Your task to perform on an android device: open sync settings in chrome Image 0: 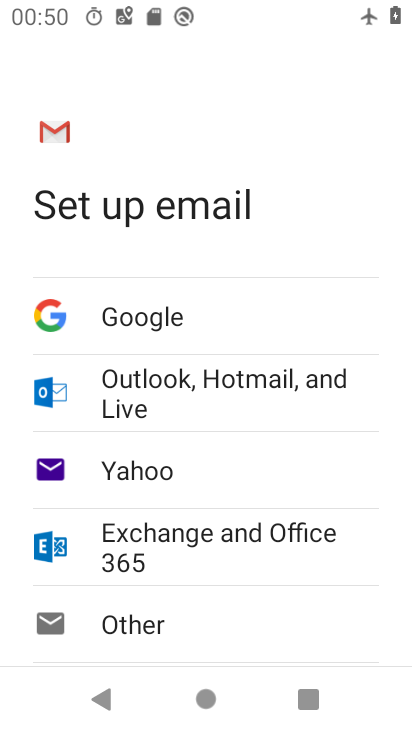
Step 0: press back button
Your task to perform on an android device: open sync settings in chrome Image 1: 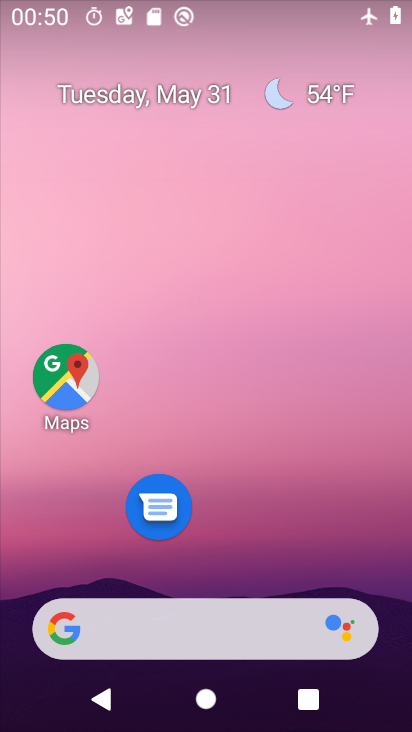
Step 1: drag from (203, 319) to (174, 160)
Your task to perform on an android device: open sync settings in chrome Image 2: 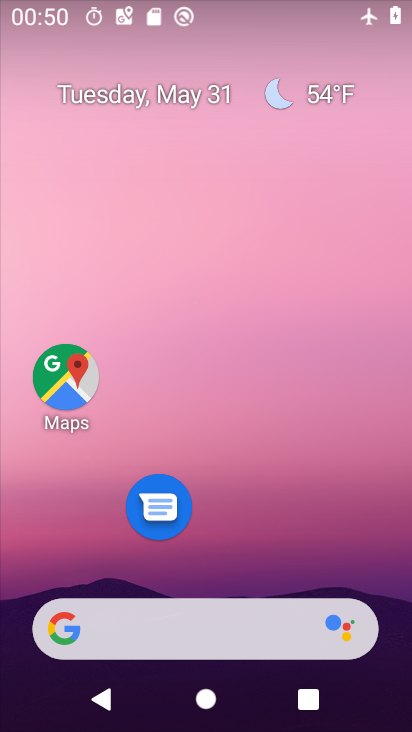
Step 2: drag from (256, 516) to (226, 198)
Your task to perform on an android device: open sync settings in chrome Image 3: 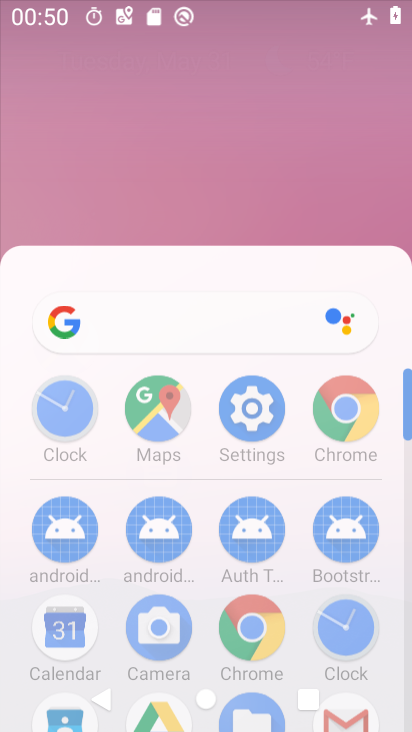
Step 3: drag from (254, 647) to (200, 170)
Your task to perform on an android device: open sync settings in chrome Image 4: 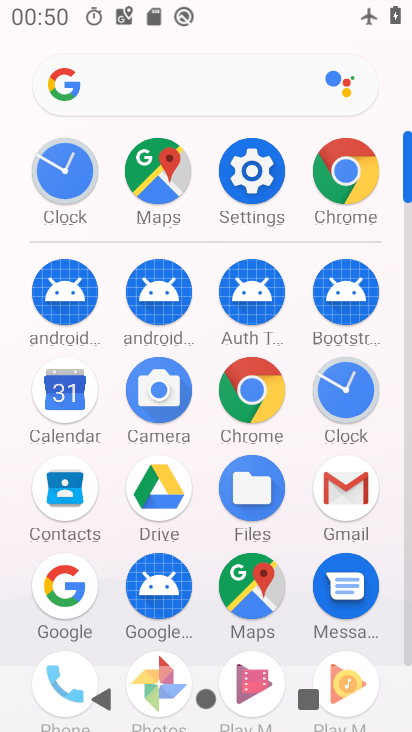
Step 4: drag from (272, 619) to (241, 153)
Your task to perform on an android device: open sync settings in chrome Image 5: 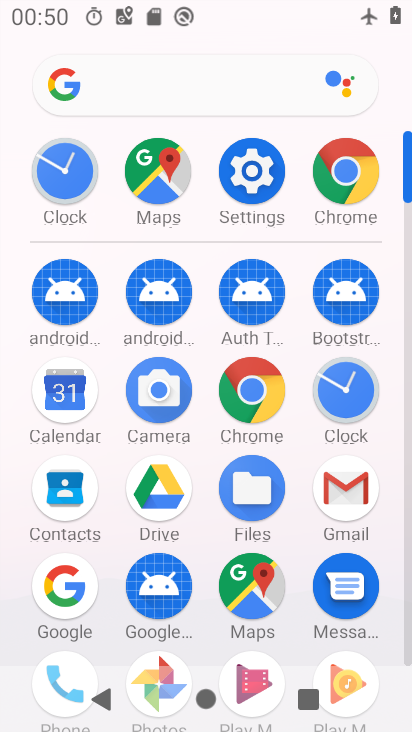
Step 5: drag from (241, 453) to (268, 74)
Your task to perform on an android device: open sync settings in chrome Image 6: 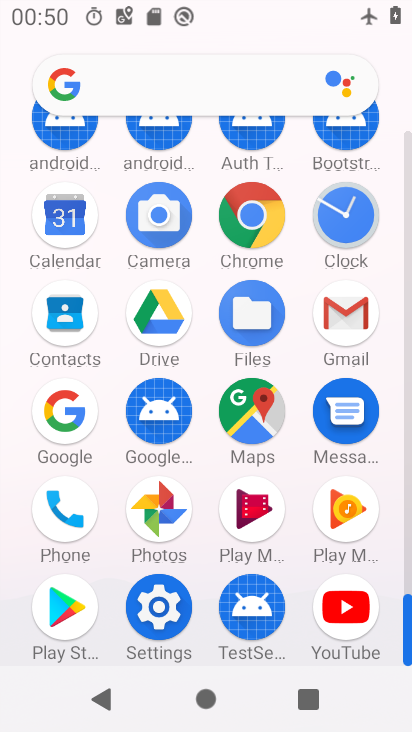
Step 6: click (238, 213)
Your task to perform on an android device: open sync settings in chrome Image 7: 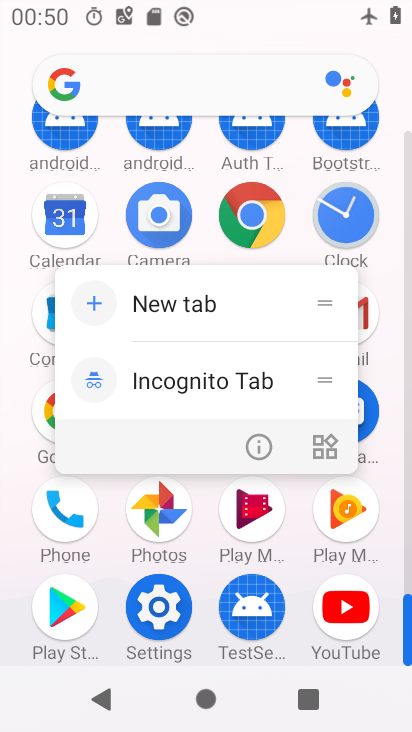
Step 7: click (168, 304)
Your task to perform on an android device: open sync settings in chrome Image 8: 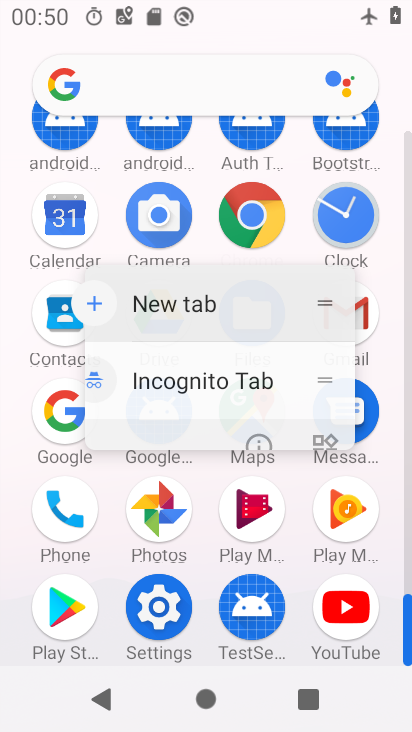
Step 8: click (174, 302)
Your task to perform on an android device: open sync settings in chrome Image 9: 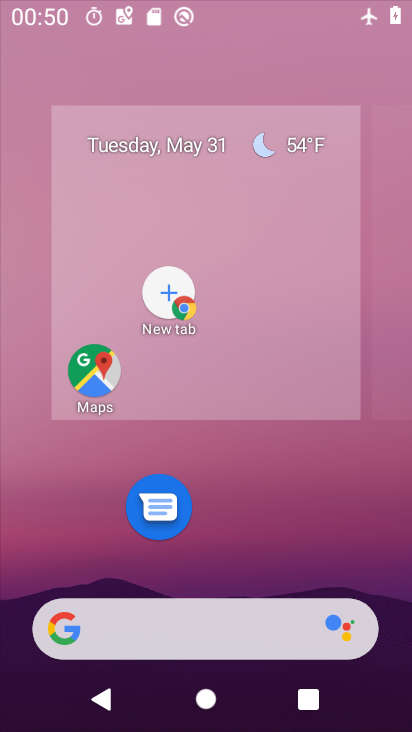
Step 9: click (175, 302)
Your task to perform on an android device: open sync settings in chrome Image 10: 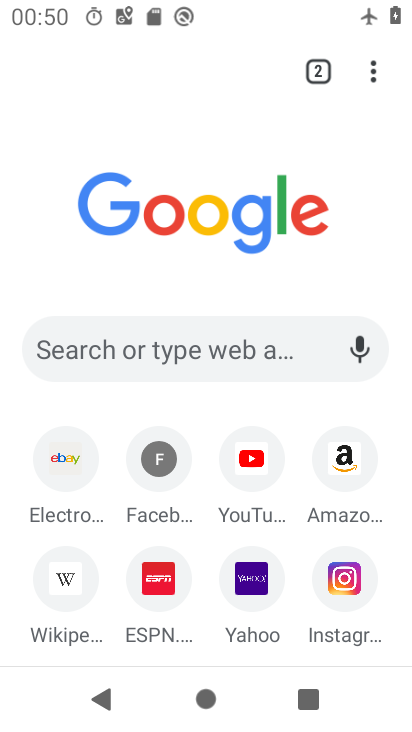
Step 10: click (229, 99)
Your task to perform on an android device: open sync settings in chrome Image 11: 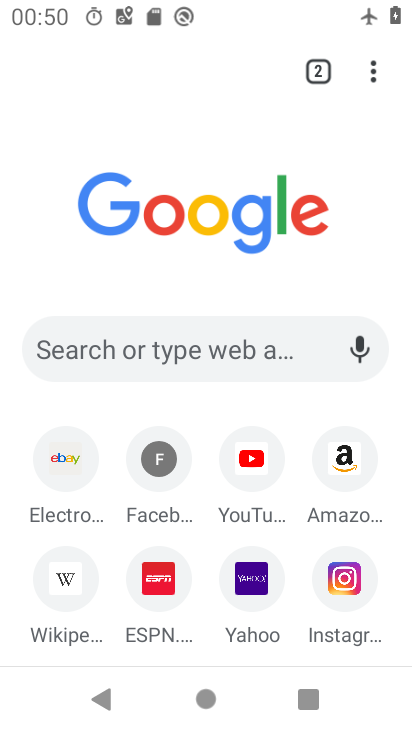
Step 11: drag from (369, 72) to (111, 499)
Your task to perform on an android device: open sync settings in chrome Image 12: 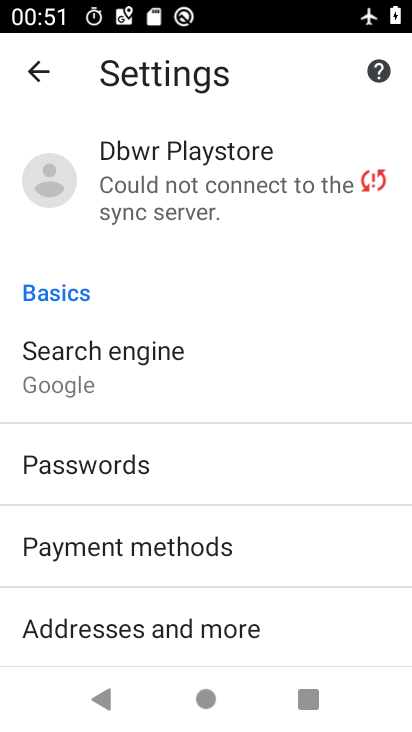
Step 12: drag from (155, 511) to (157, 223)
Your task to perform on an android device: open sync settings in chrome Image 13: 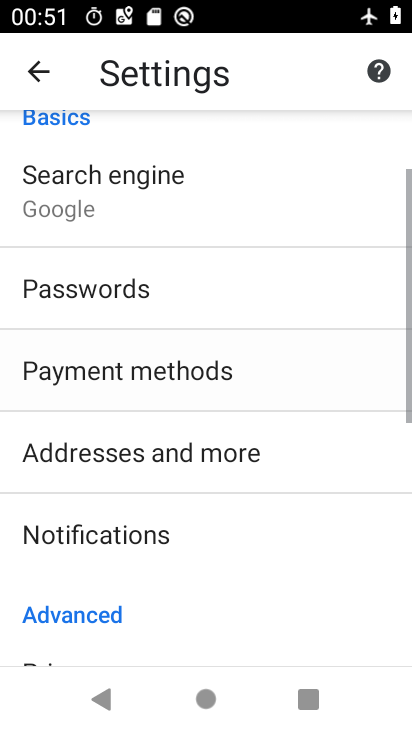
Step 13: drag from (141, 488) to (157, 174)
Your task to perform on an android device: open sync settings in chrome Image 14: 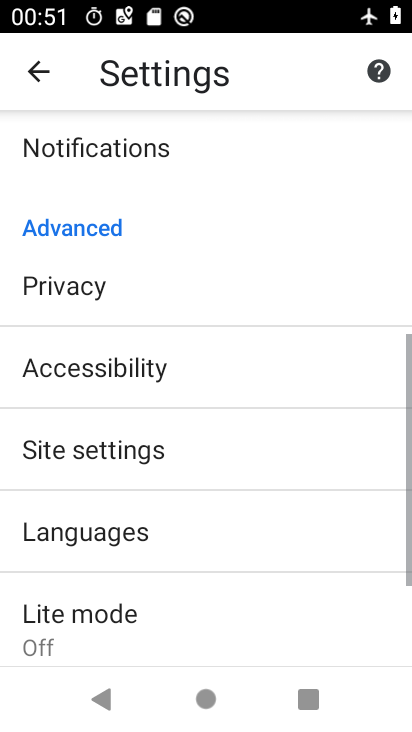
Step 14: drag from (160, 489) to (240, 159)
Your task to perform on an android device: open sync settings in chrome Image 15: 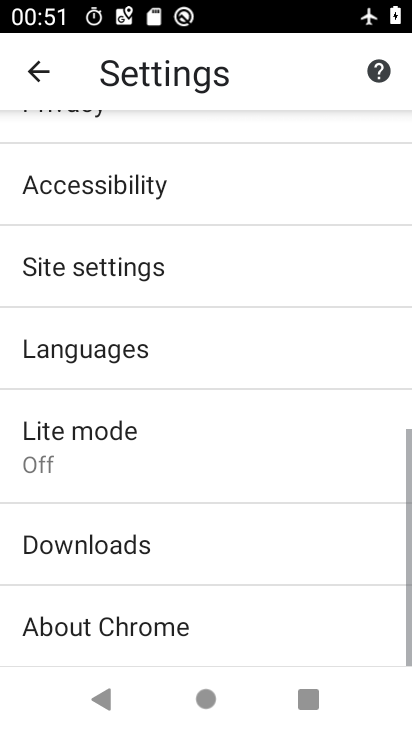
Step 15: drag from (243, 390) to (248, 136)
Your task to perform on an android device: open sync settings in chrome Image 16: 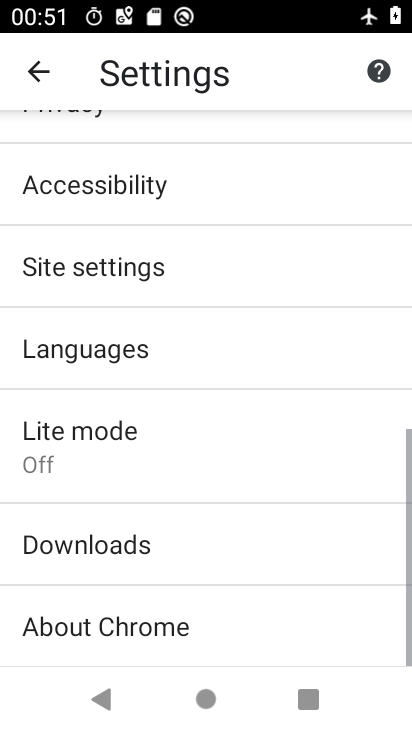
Step 16: drag from (234, 442) to (240, 235)
Your task to perform on an android device: open sync settings in chrome Image 17: 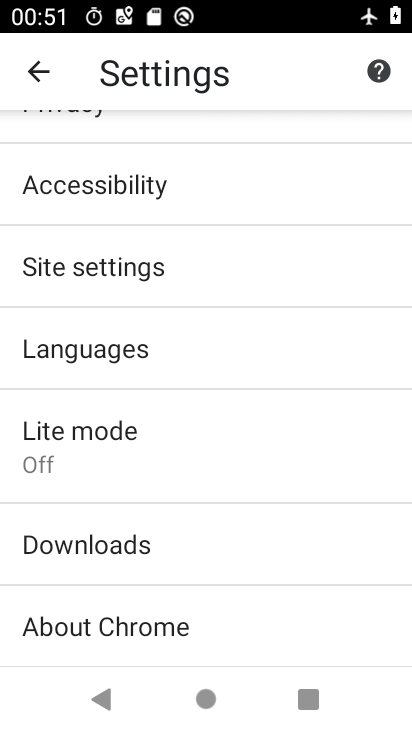
Step 17: click (63, 267)
Your task to perform on an android device: open sync settings in chrome Image 18: 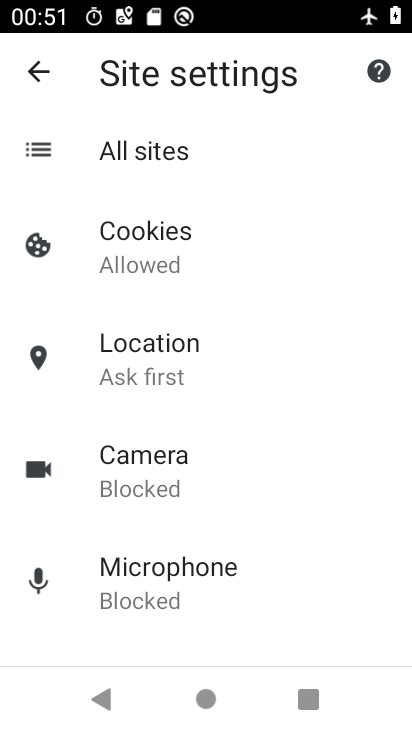
Step 18: drag from (160, 485) to (160, 246)
Your task to perform on an android device: open sync settings in chrome Image 19: 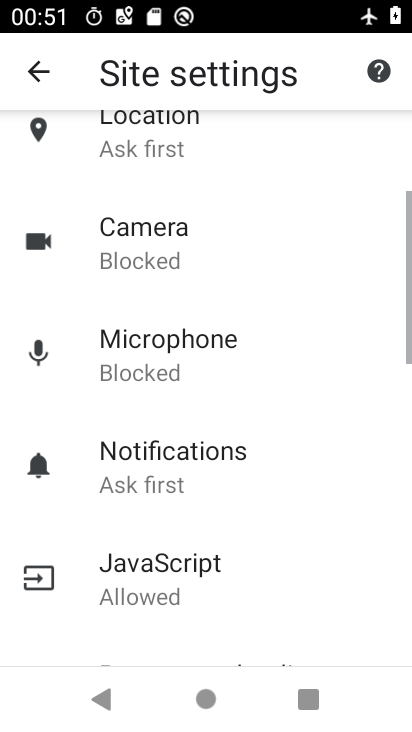
Step 19: drag from (203, 562) to (207, 254)
Your task to perform on an android device: open sync settings in chrome Image 20: 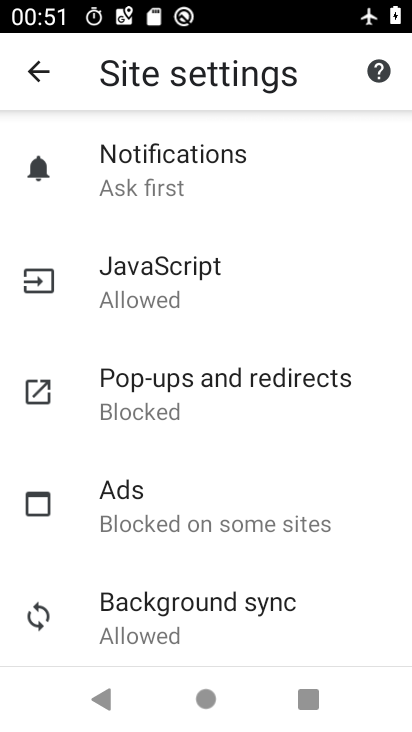
Step 20: click (153, 602)
Your task to perform on an android device: open sync settings in chrome Image 21: 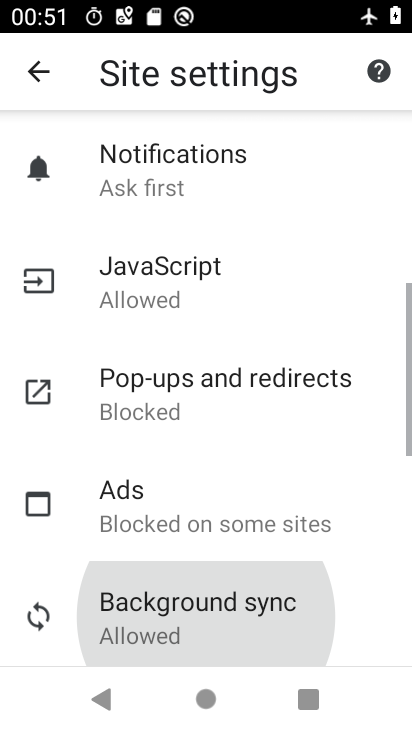
Step 21: click (153, 602)
Your task to perform on an android device: open sync settings in chrome Image 22: 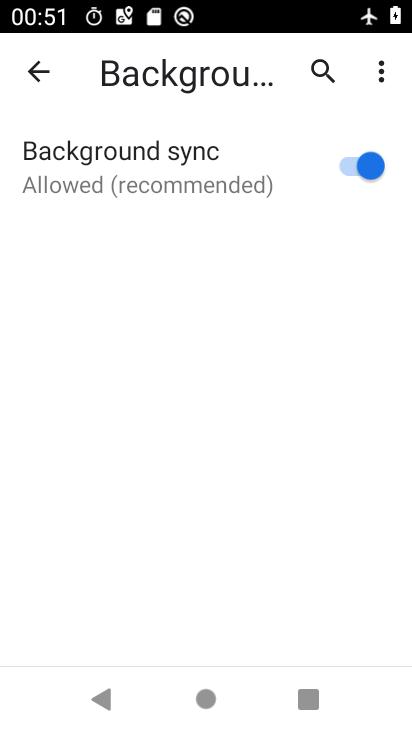
Step 22: task complete